Your task to perform on an android device: Open the Play Movies app and select the watchlist tab. Image 0: 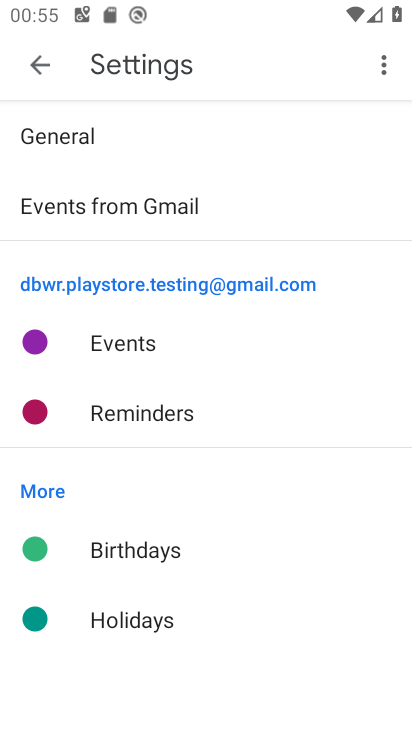
Step 0: press home button
Your task to perform on an android device: Open the Play Movies app and select the watchlist tab. Image 1: 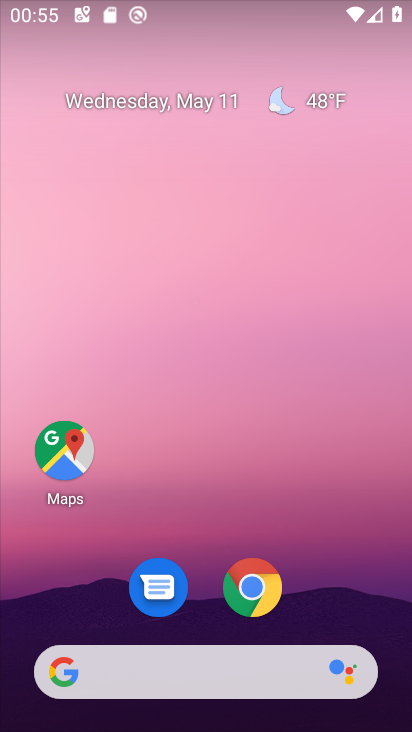
Step 1: drag from (345, 586) to (236, 195)
Your task to perform on an android device: Open the Play Movies app and select the watchlist tab. Image 2: 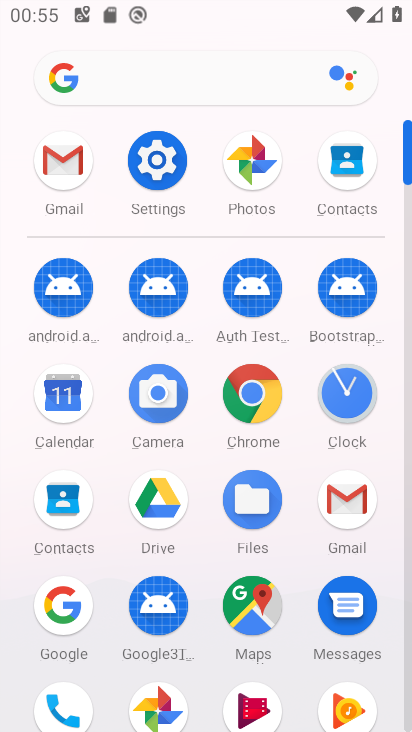
Step 2: click (242, 696)
Your task to perform on an android device: Open the Play Movies app and select the watchlist tab. Image 3: 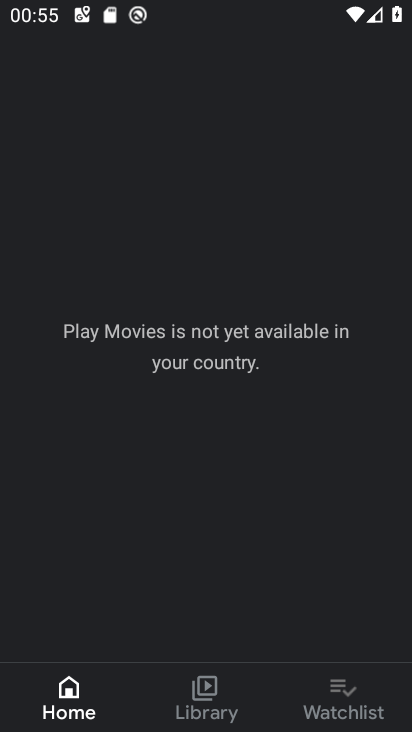
Step 3: click (345, 692)
Your task to perform on an android device: Open the Play Movies app and select the watchlist tab. Image 4: 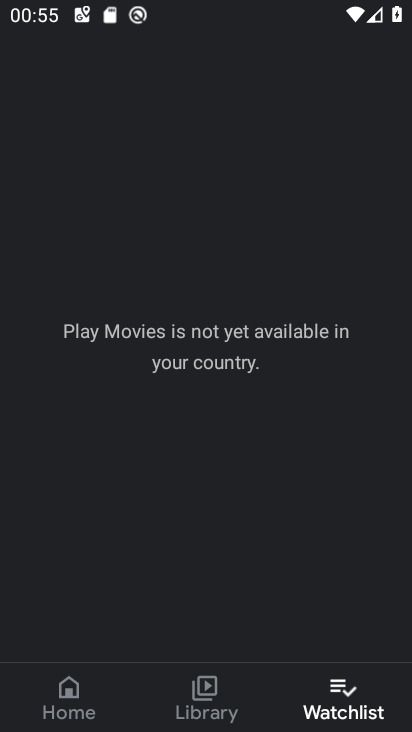
Step 4: task complete